Your task to perform on an android device: turn off location history Image 0: 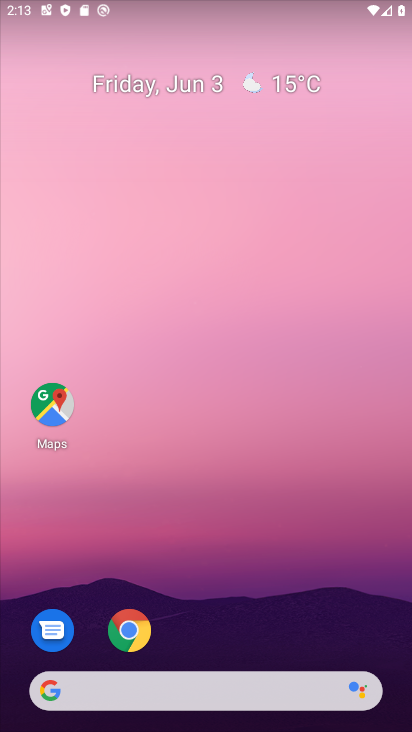
Step 0: drag from (276, 580) to (221, 40)
Your task to perform on an android device: turn off location history Image 1: 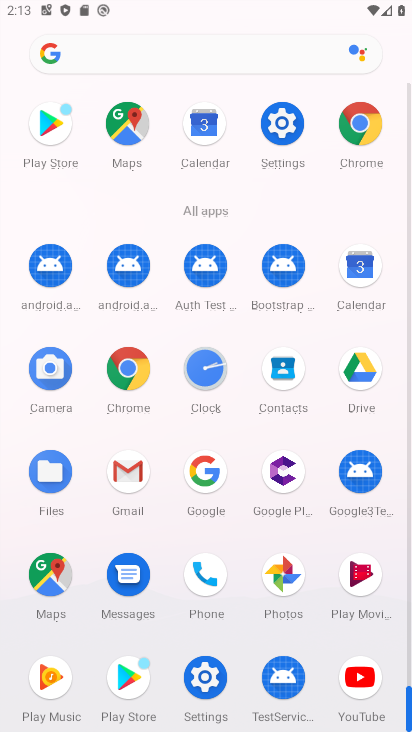
Step 1: drag from (12, 596) to (22, 236)
Your task to perform on an android device: turn off location history Image 2: 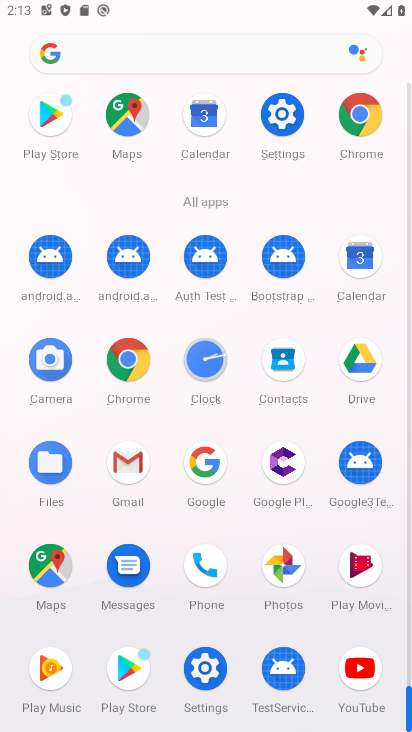
Step 2: click (206, 663)
Your task to perform on an android device: turn off location history Image 3: 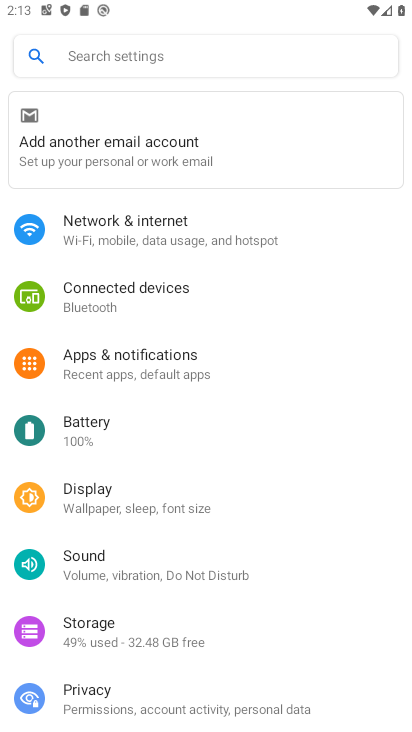
Step 3: drag from (215, 623) to (243, 281)
Your task to perform on an android device: turn off location history Image 4: 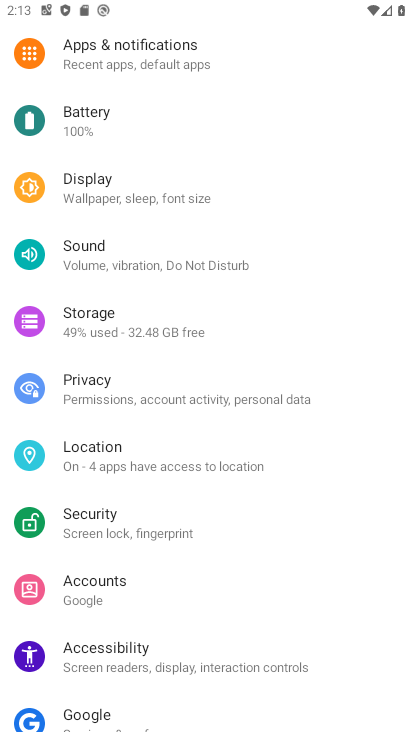
Step 4: click (158, 461)
Your task to perform on an android device: turn off location history Image 5: 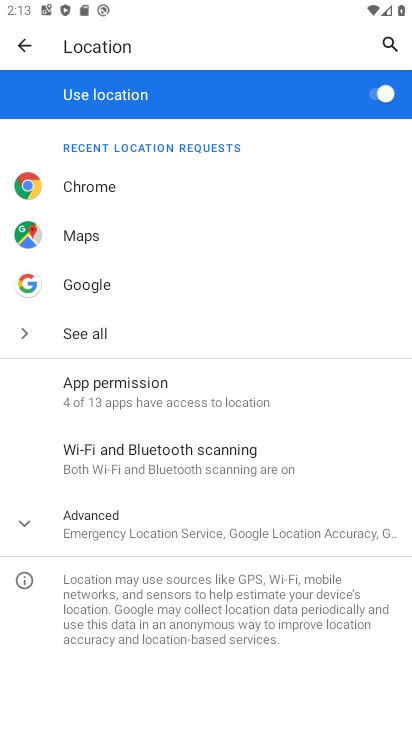
Step 5: click (123, 514)
Your task to perform on an android device: turn off location history Image 6: 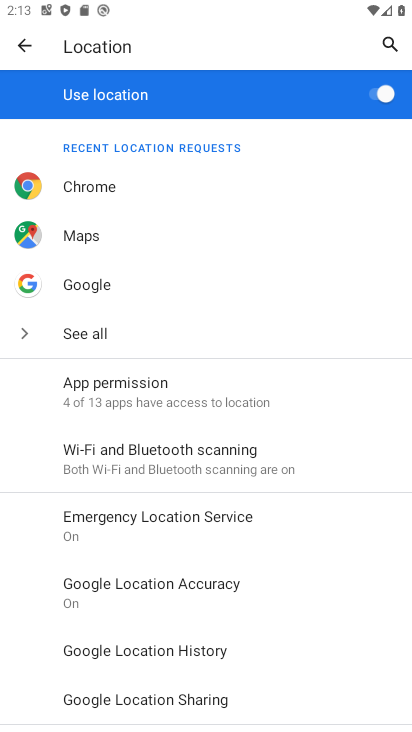
Step 6: click (214, 646)
Your task to perform on an android device: turn off location history Image 7: 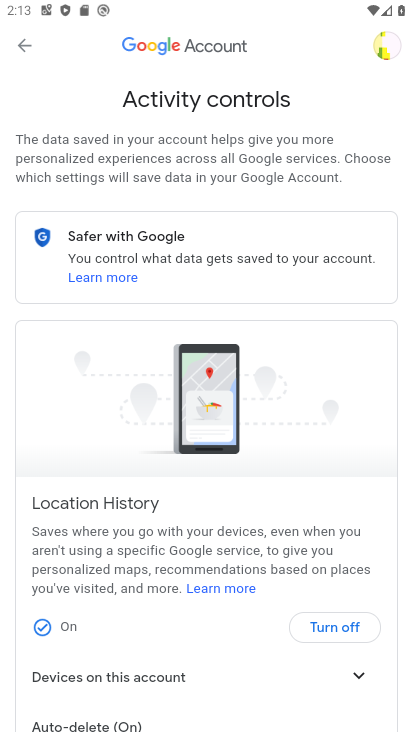
Step 7: click (321, 623)
Your task to perform on an android device: turn off location history Image 8: 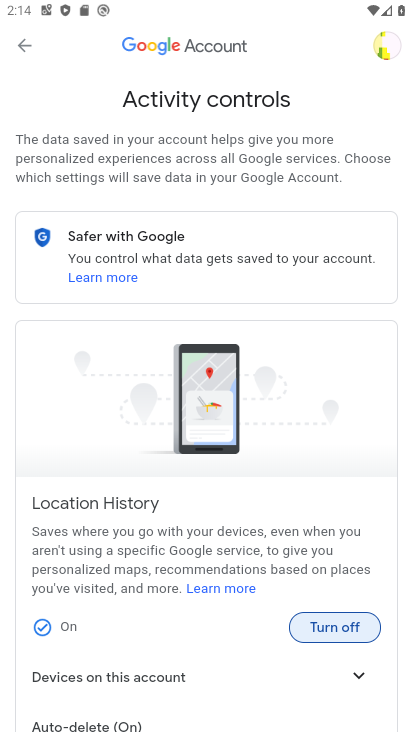
Step 8: drag from (281, 642) to (292, 213)
Your task to perform on an android device: turn off location history Image 9: 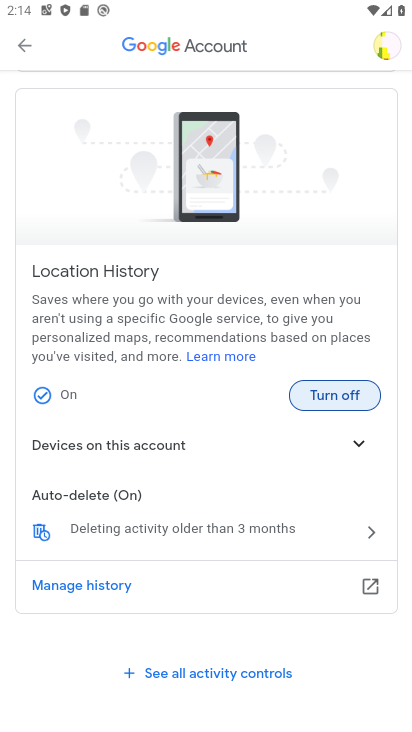
Step 9: click (326, 447)
Your task to perform on an android device: turn off location history Image 10: 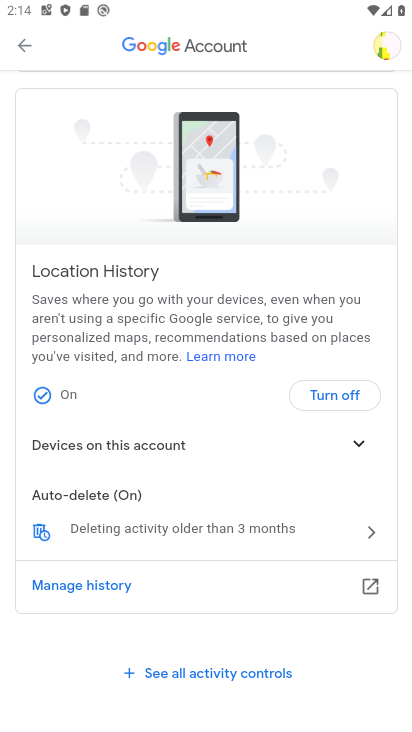
Step 10: click (327, 395)
Your task to perform on an android device: turn off location history Image 11: 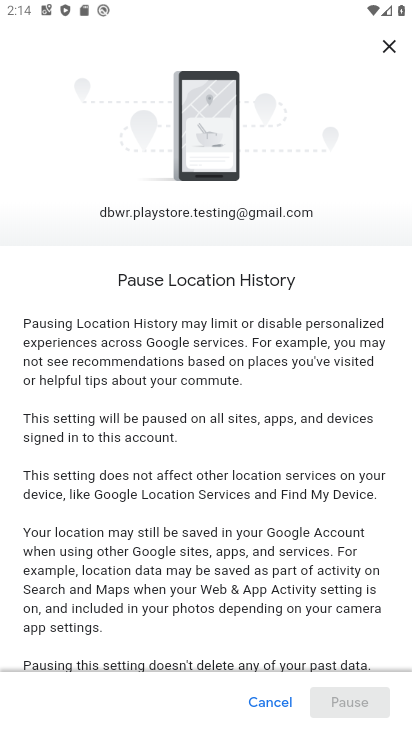
Step 11: drag from (332, 581) to (318, 234)
Your task to perform on an android device: turn off location history Image 12: 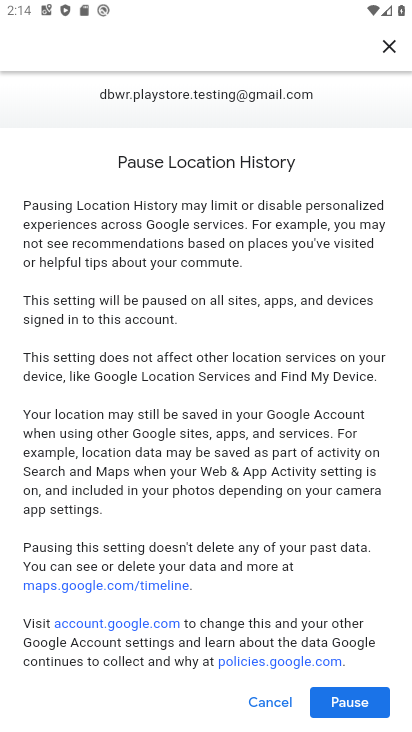
Step 12: click (360, 700)
Your task to perform on an android device: turn off location history Image 13: 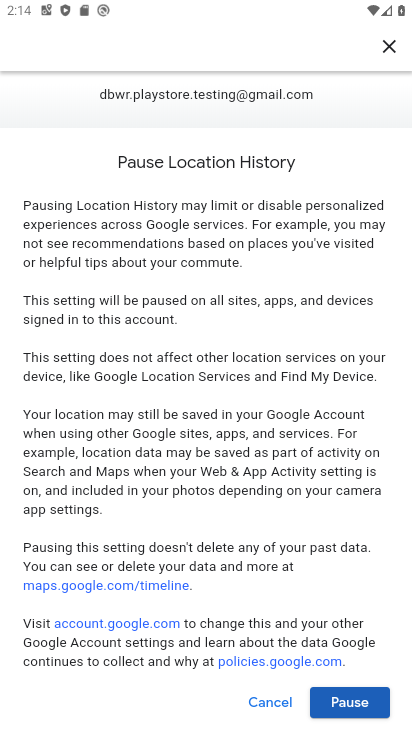
Step 13: click (373, 708)
Your task to perform on an android device: turn off location history Image 14: 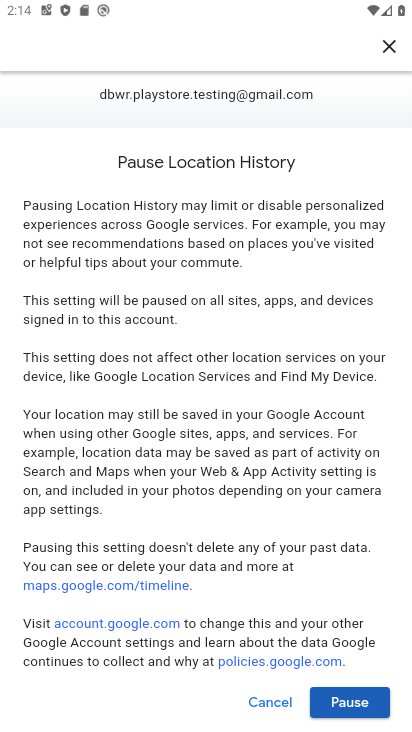
Step 14: drag from (242, 556) to (227, 193)
Your task to perform on an android device: turn off location history Image 15: 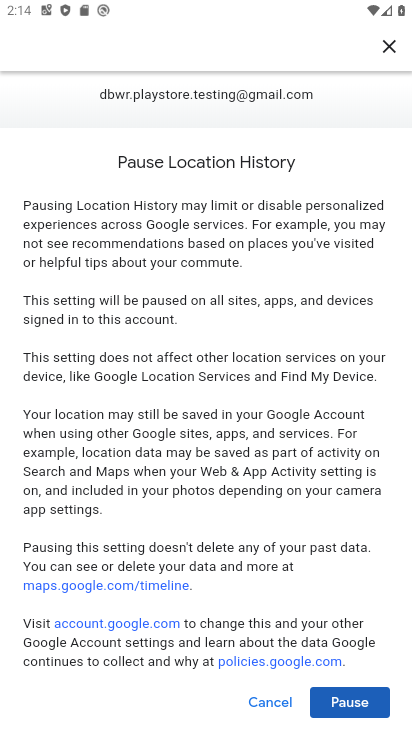
Step 15: click (358, 701)
Your task to perform on an android device: turn off location history Image 16: 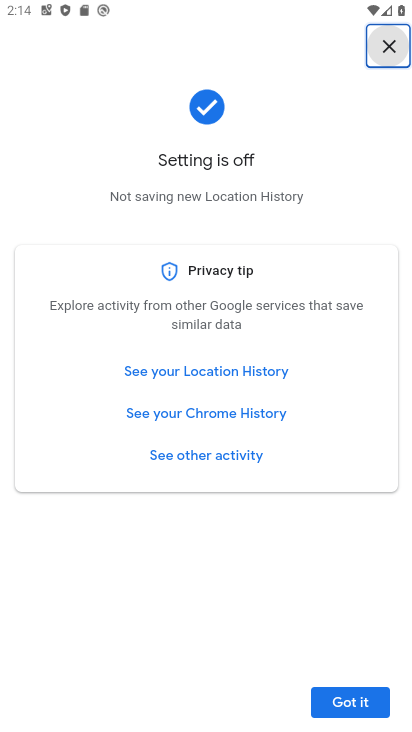
Step 16: task complete